Your task to perform on an android device: Go to Maps Image 0: 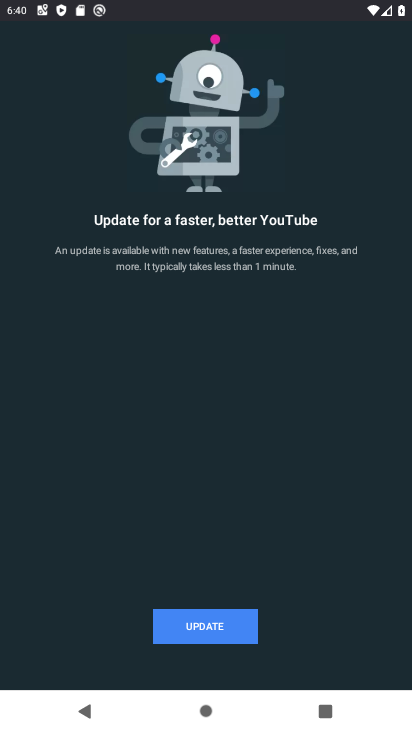
Step 0: press back button
Your task to perform on an android device: Go to Maps Image 1: 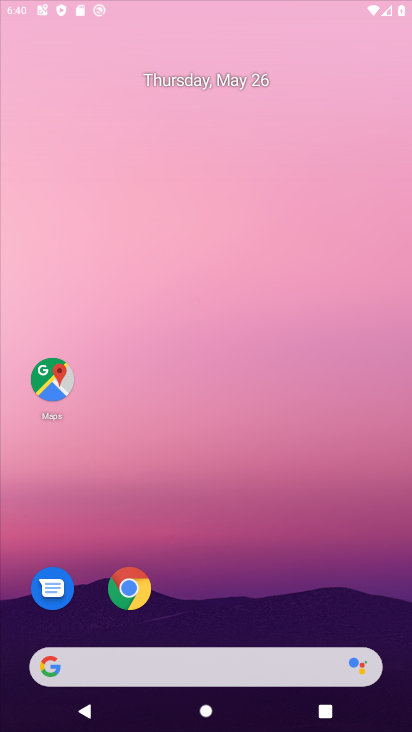
Step 1: drag from (400, 627) to (268, 26)
Your task to perform on an android device: Go to Maps Image 2: 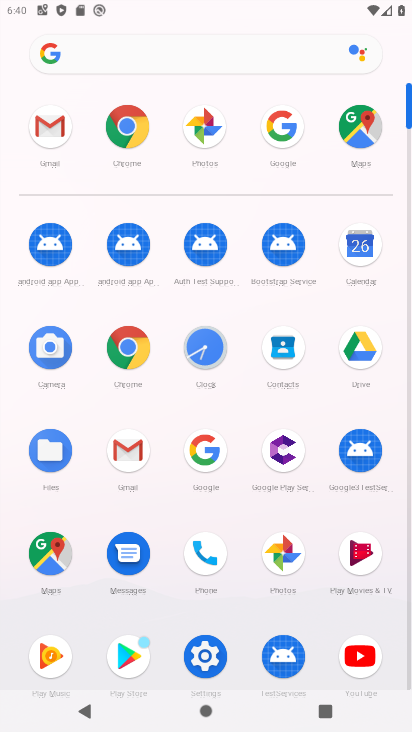
Step 2: click (370, 121)
Your task to perform on an android device: Go to Maps Image 3: 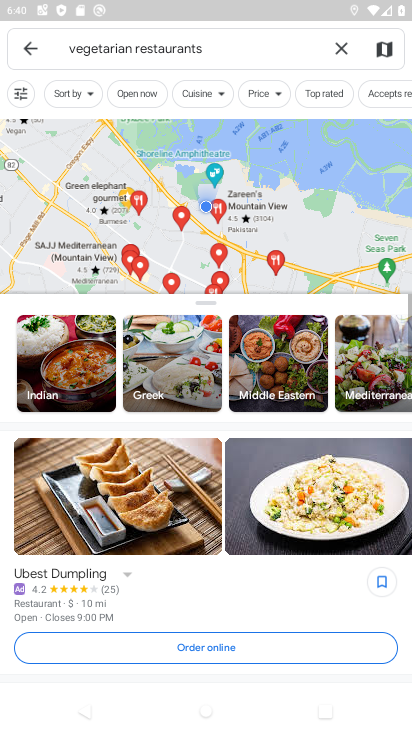
Step 3: click (343, 47)
Your task to perform on an android device: Go to Maps Image 4: 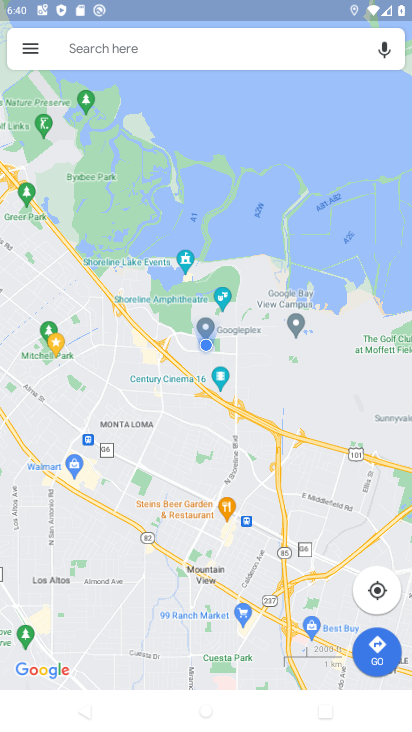
Step 4: task complete